Your task to perform on an android device: Open Reddit.com Image 0: 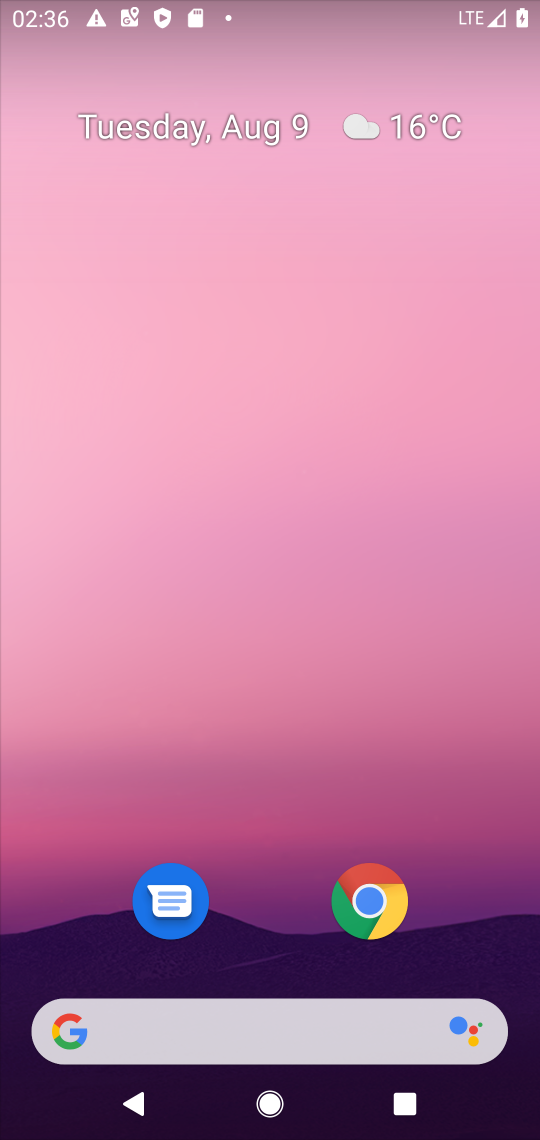
Step 0: click (373, 904)
Your task to perform on an android device: Open Reddit.com Image 1: 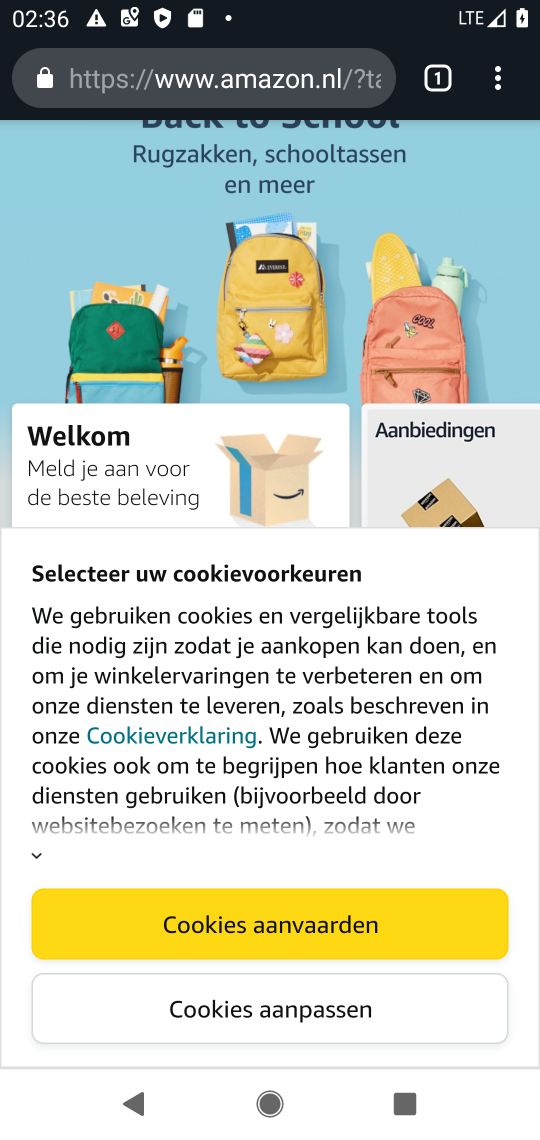
Step 1: click (354, 58)
Your task to perform on an android device: Open Reddit.com Image 2: 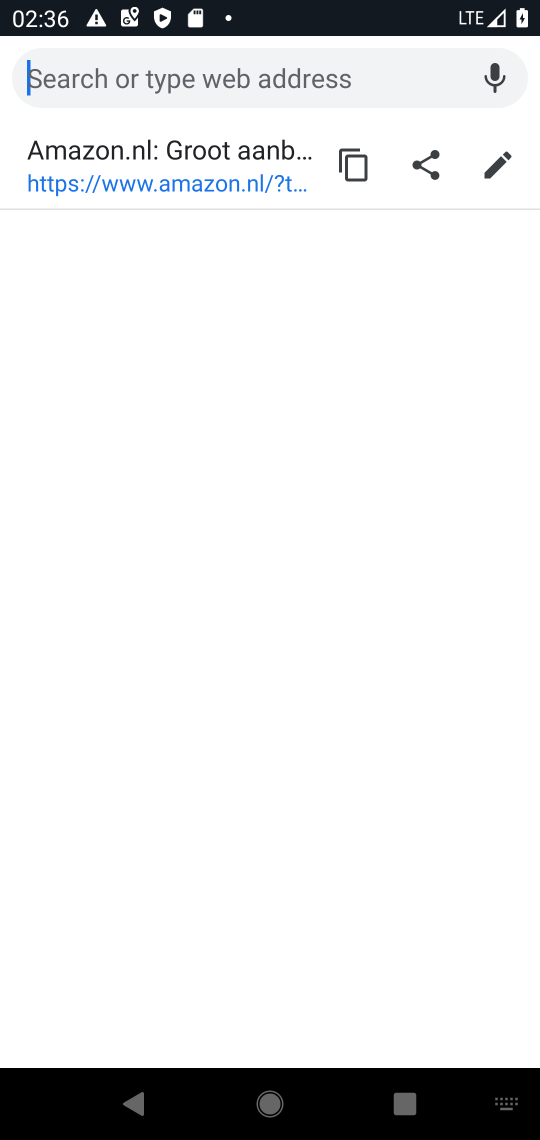
Step 2: type "reddit.com"
Your task to perform on an android device: Open Reddit.com Image 3: 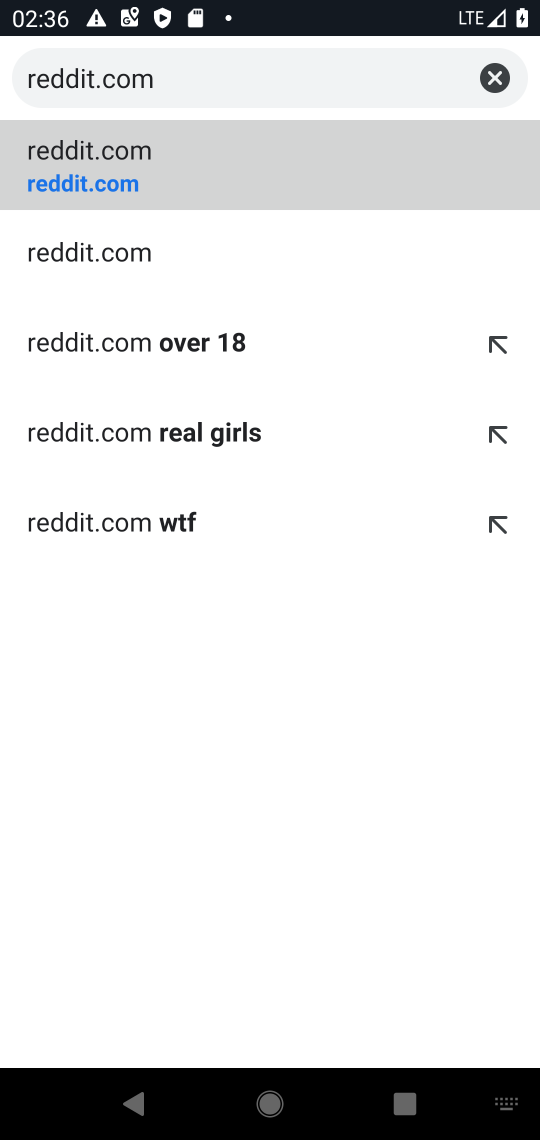
Step 3: click (80, 158)
Your task to perform on an android device: Open Reddit.com Image 4: 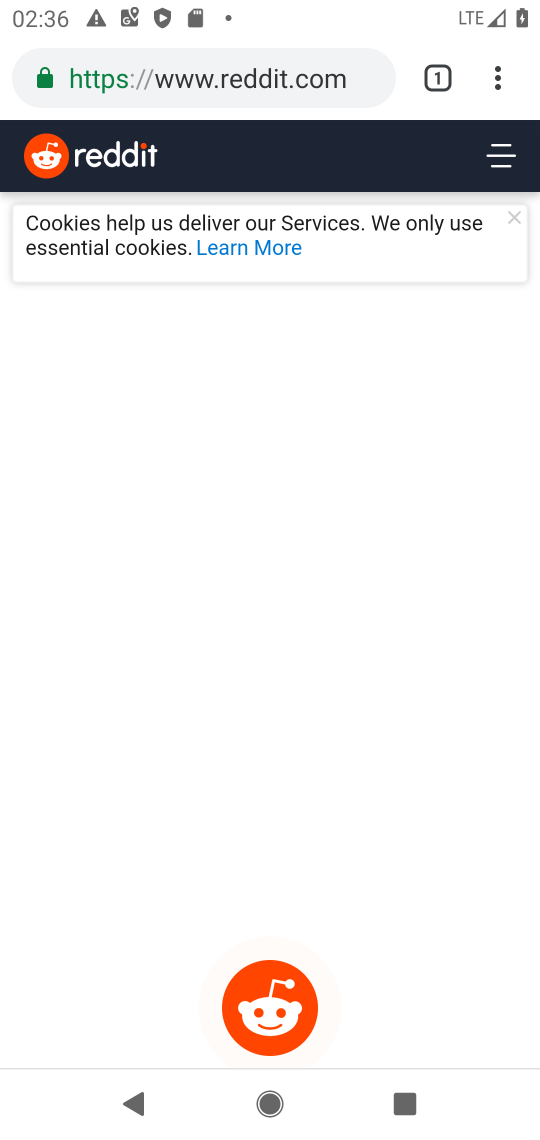
Step 4: task complete